Your task to perform on an android device: turn off smart reply in the gmail app Image 0: 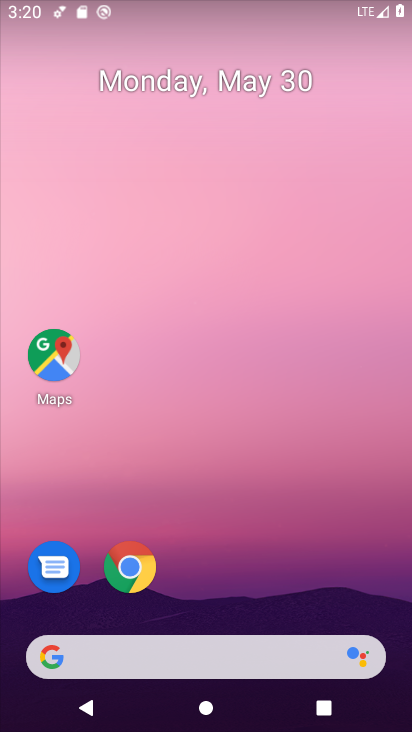
Step 0: drag from (242, 607) to (224, 0)
Your task to perform on an android device: turn off smart reply in the gmail app Image 1: 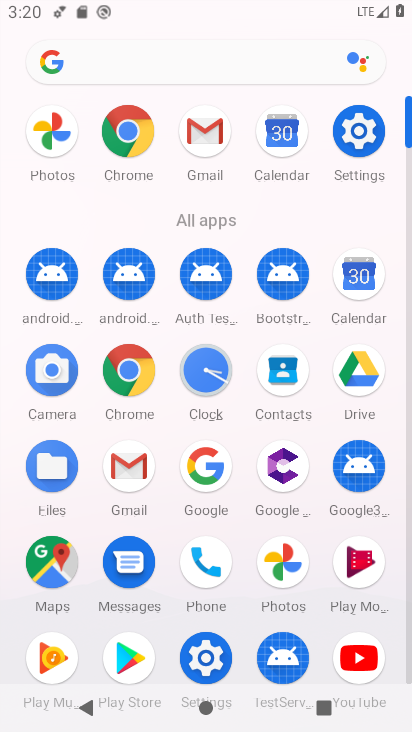
Step 1: click (123, 466)
Your task to perform on an android device: turn off smart reply in the gmail app Image 2: 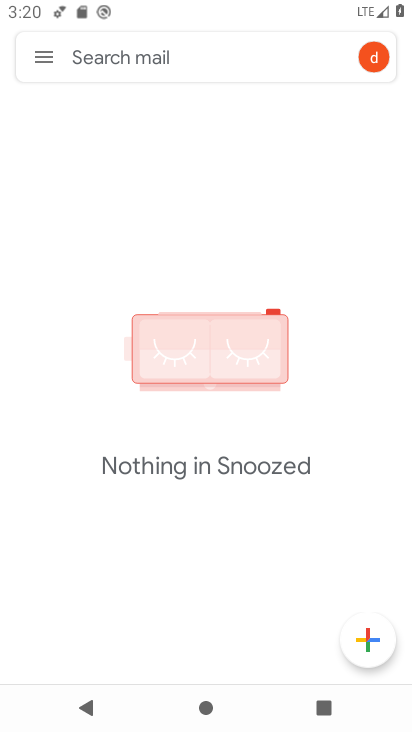
Step 2: click (44, 53)
Your task to perform on an android device: turn off smart reply in the gmail app Image 3: 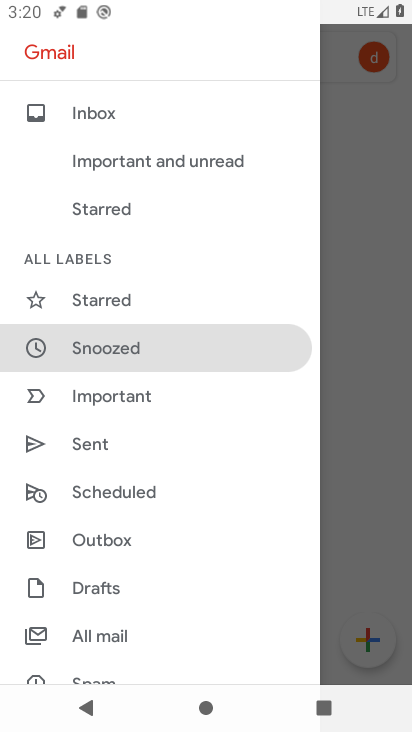
Step 3: drag from (111, 648) to (188, 221)
Your task to perform on an android device: turn off smart reply in the gmail app Image 4: 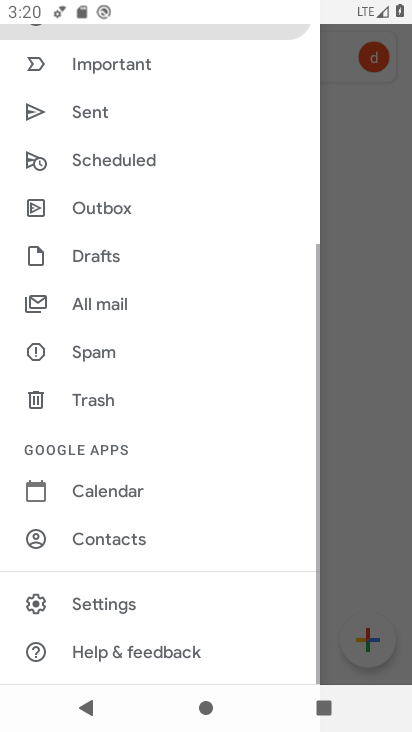
Step 4: click (168, 611)
Your task to perform on an android device: turn off smart reply in the gmail app Image 5: 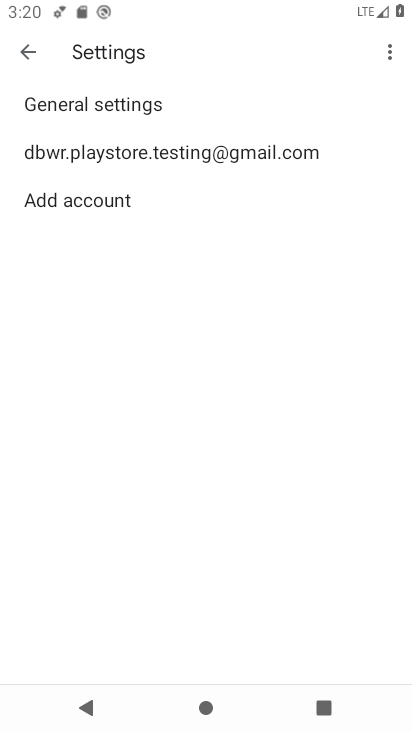
Step 5: click (128, 152)
Your task to perform on an android device: turn off smart reply in the gmail app Image 6: 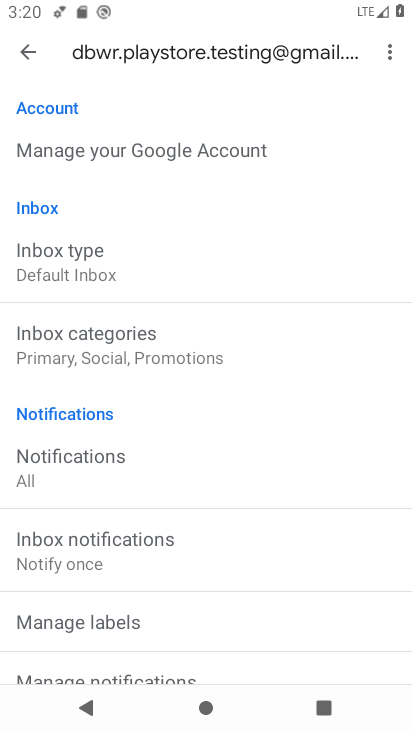
Step 6: drag from (158, 648) to (142, 177)
Your task to perform on an android device: turn off smart reply in the gmail app Image 7: 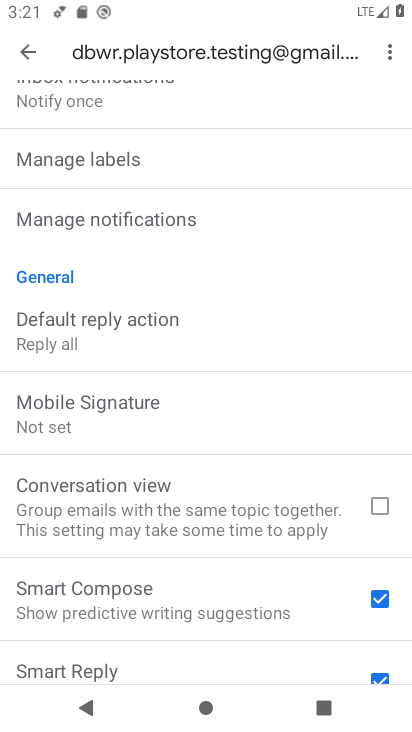
Step 7: drag from (202, 605) to (273, 302)
Your task to perform on an android device: turn off smart reply in the gmail app Image 8: 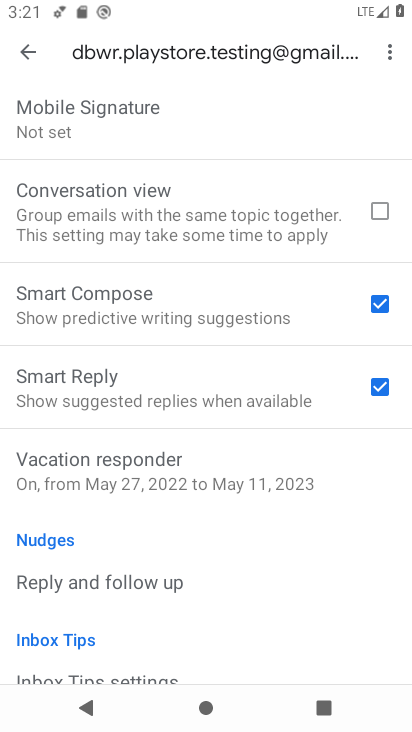
Step 8: click (359, 403)
Your task to perform on an android device: turn off smart reply in the gmail app Image 9: 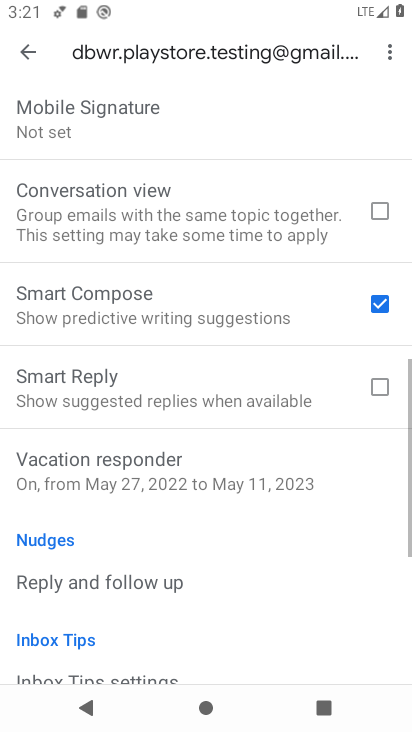
Step 9: task complete